Your task to perform on an android device: set default search engine in the chrome app Image 0: 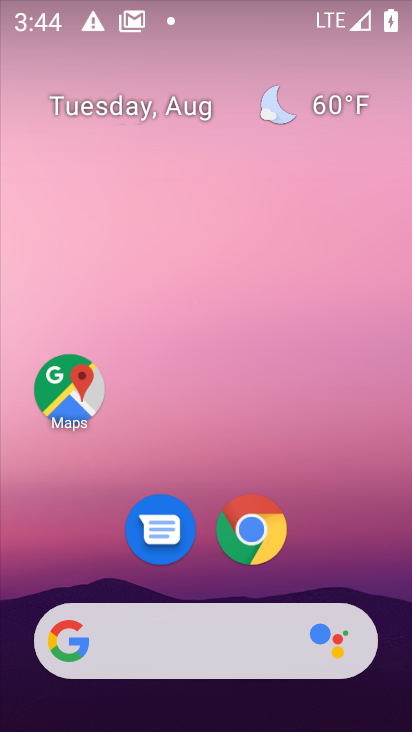
Step 0: click (270, 534)
Your task to perform on an android device: set default search engine in the chrome app Image 1: 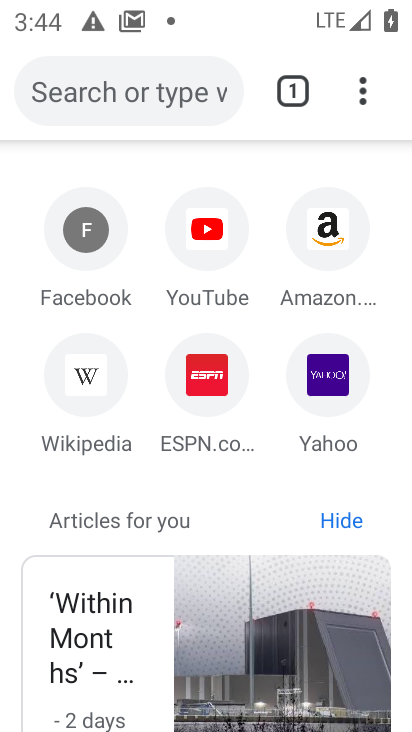
Step 1: click (365, 105)
Your task to perform on an android device: set default search engine in the chrome app Image 2: 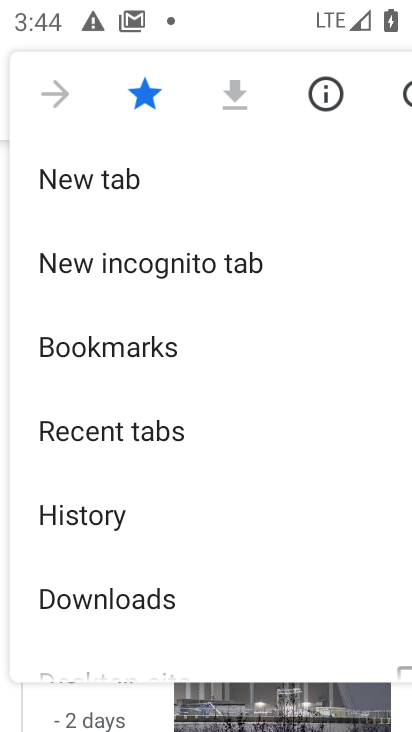
Step 2: drag from (322, 541) to (303, 254)
Your task to perform on an android device: set default search engine in the chrome app Image 3: 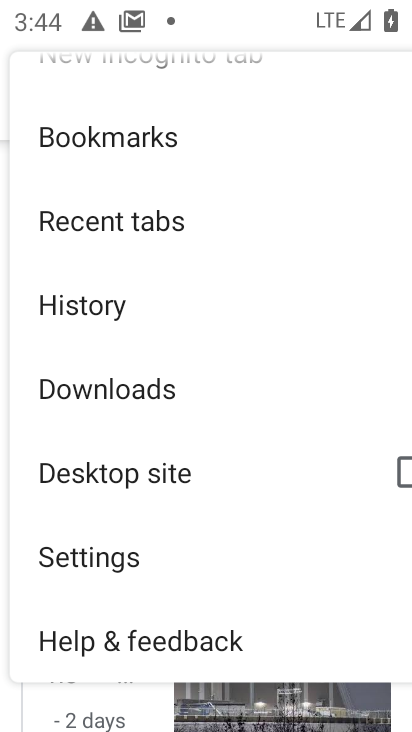
Step 3: click (150, 547)
Your task to perform on an android device: set default search engine in the chrome app Image 4: 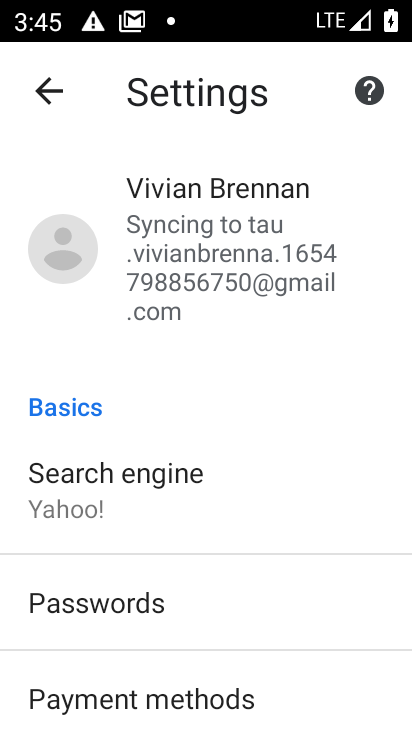
Step 4: click (104, 470)
Your task to perform on an android device: set default search engine in the chrome app Image 5: 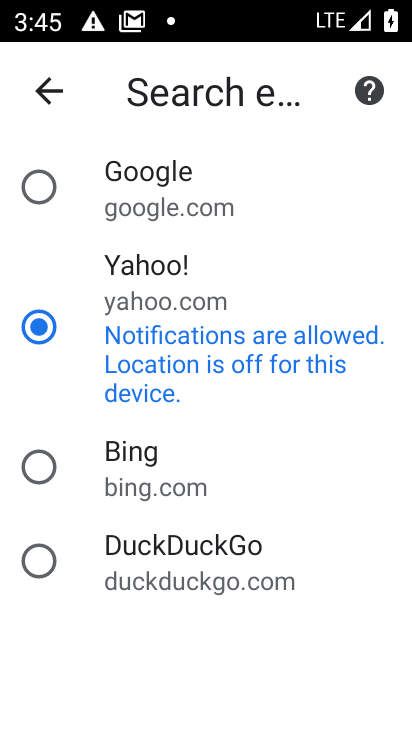
Step 5: click (136, 463)
Your task to perform on an android device: set default search engine in the chrome app Image 6: 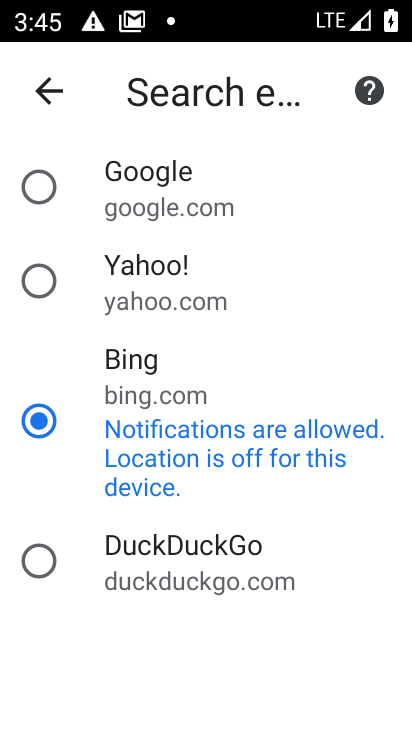
Step 6: task complete